Your task to perform on an android device: add a contact Image 0: 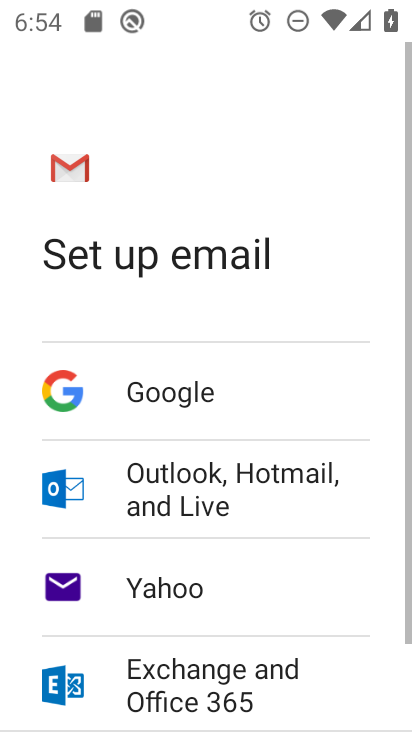
Step 0: press home button
Your task to perform on an android device: add a contact Image 1: 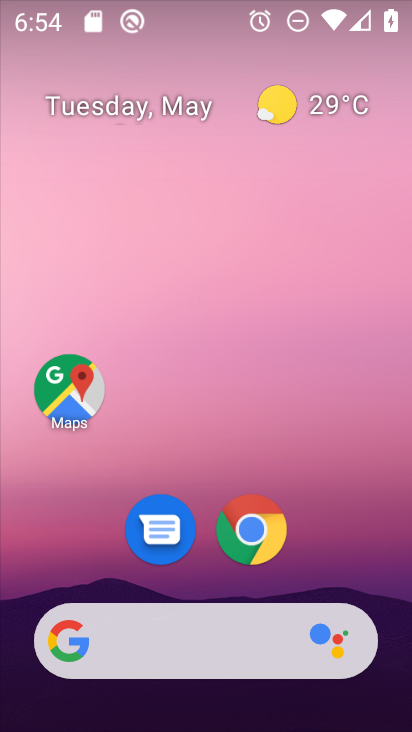
Step 1: drag from (364, 584) to (233, 87)
Your task to perform on an android device: add a contact Image 2: 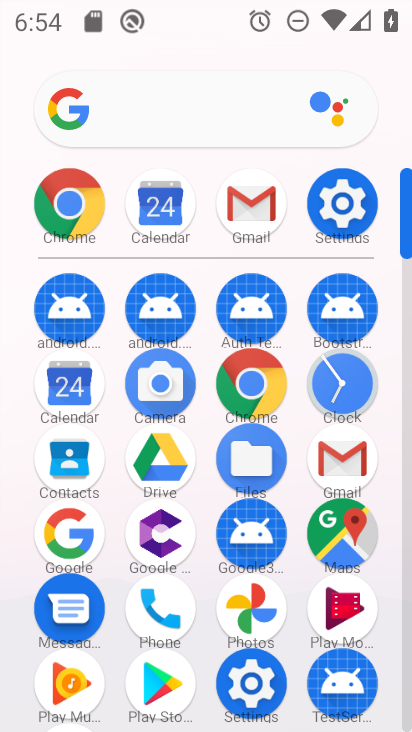
Step 2: click (78, 472)
Your task to perform on an android device: add a contact Image 3: 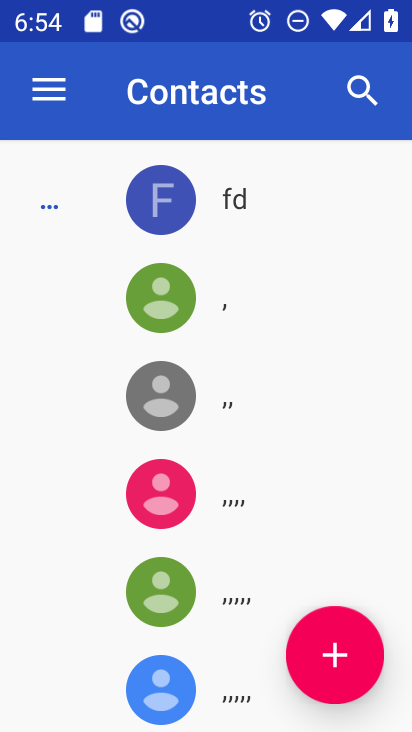
Step 3: click (334, 697)
Your task to perform on an android device: add a contact Image 4: 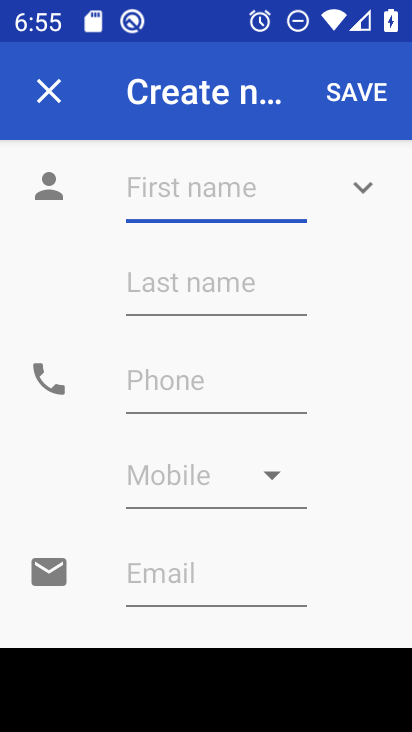
Step 4: type "ishant"
Your task to perform on an android device: add a contact Image 5: 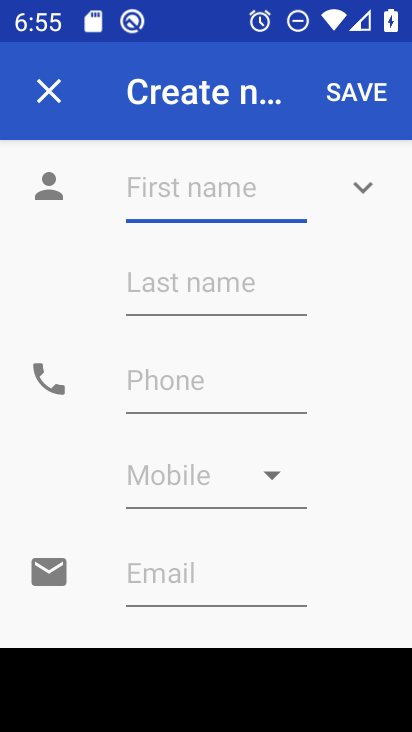
Step 5: click (330, 99)
Your task to perform on an android device: add a contact Image 6: 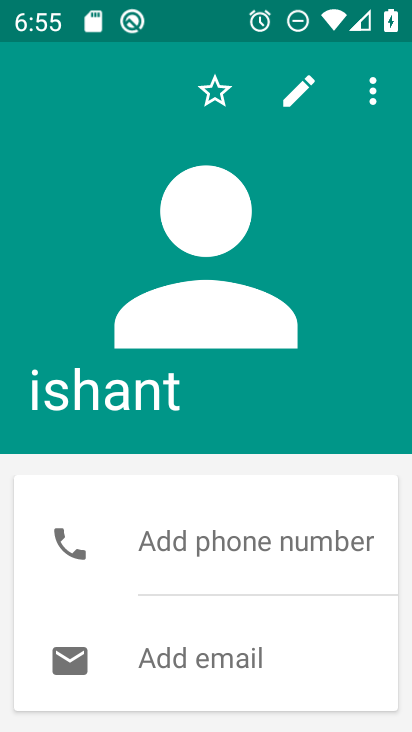
Step 6: task complete